Your task to perform on an android device: toggle airplane mode Image 0: 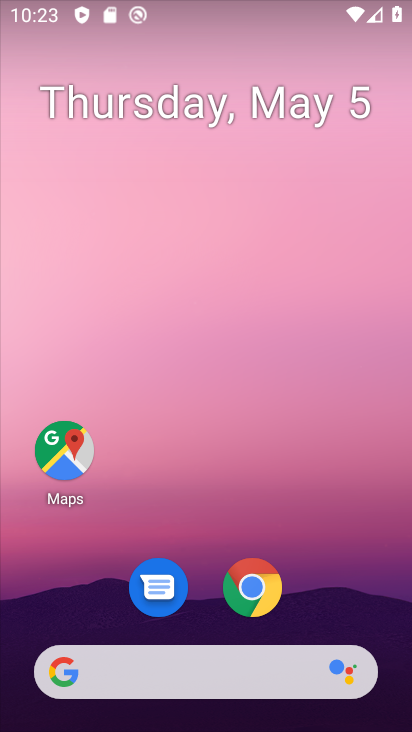
Step 0: drag from (321, 586) to (252, 28)
Your task to perform on an android device: toggle airplane mode Image 1: 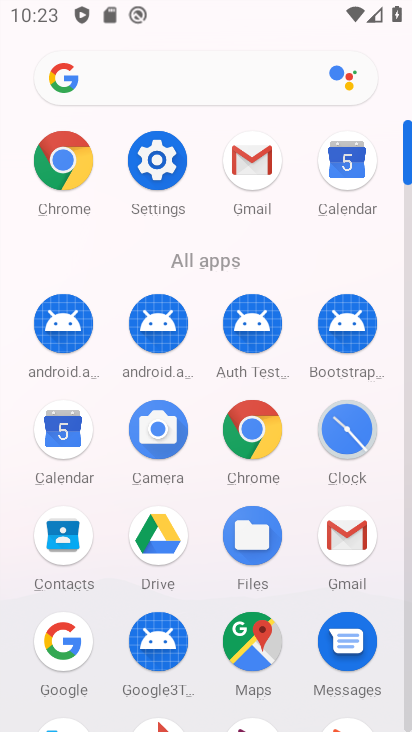
Step 1: drag from (14, 563) to (15, 246)
Your task to perform on an android device: toggle airplane mode Image 2: 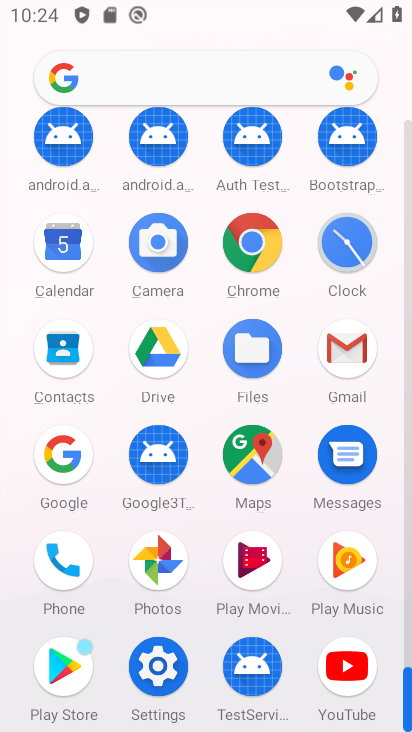
Step 2: click (158, 663)
Your task to perform on an android device: toggle airplane mode Image 3: 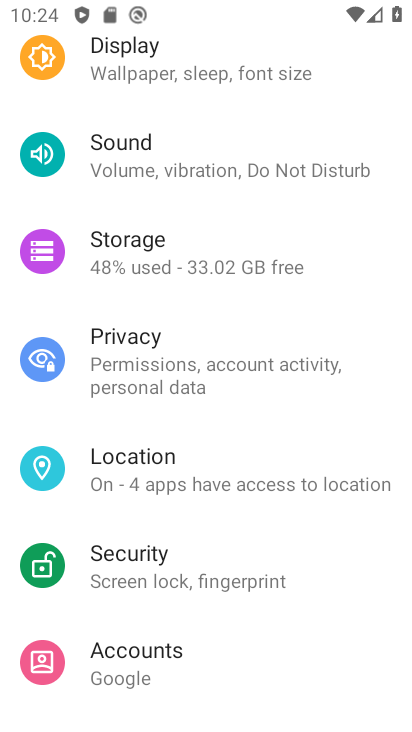
Step 3: drag from (231, 246) to (242, 600)
Your task to perform on an android device: toggle airplane mode Image 4: 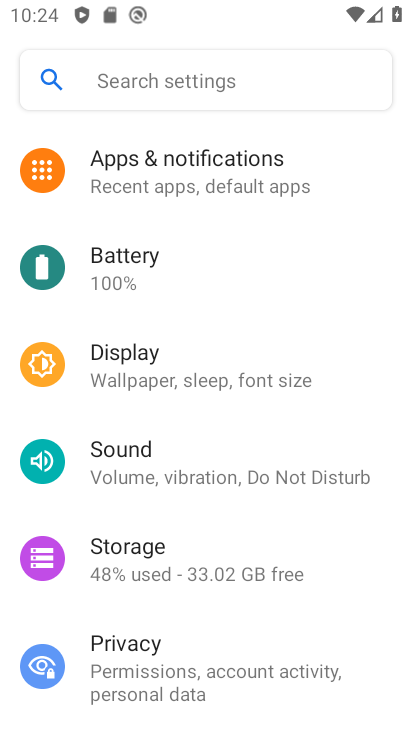
Step 4: drag from (222, 201) to (221, 580)
Your task to perform on an android device: toggle airplane mode Image 5: 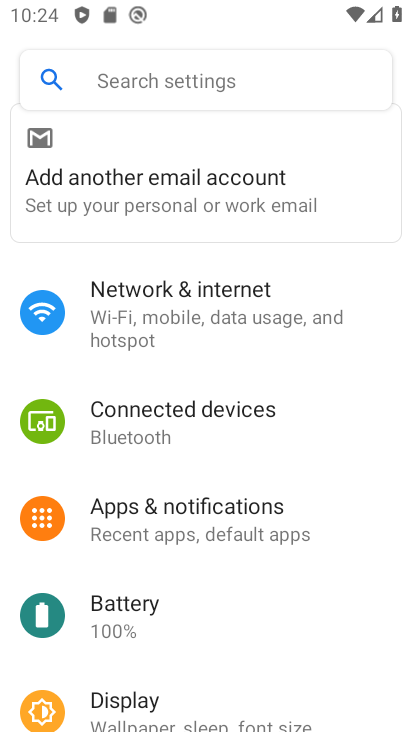
Step 5: click (197, 314)
Your task to perform on an android device: toggle airplane mode Image 6: 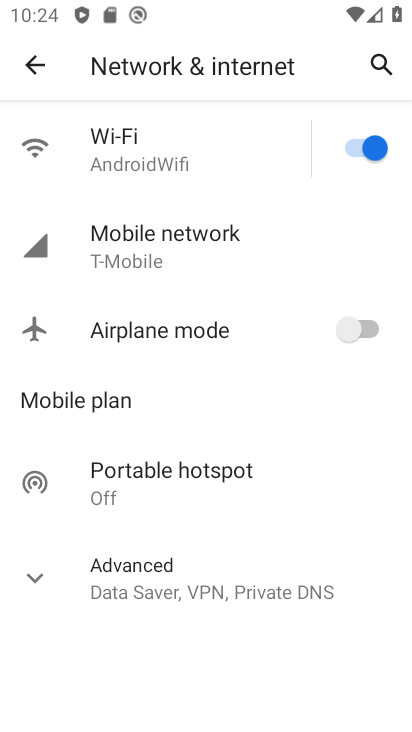
Step 6: click (53, 579)
Your task to perform on an android device: toggle airplane mode Image 7: 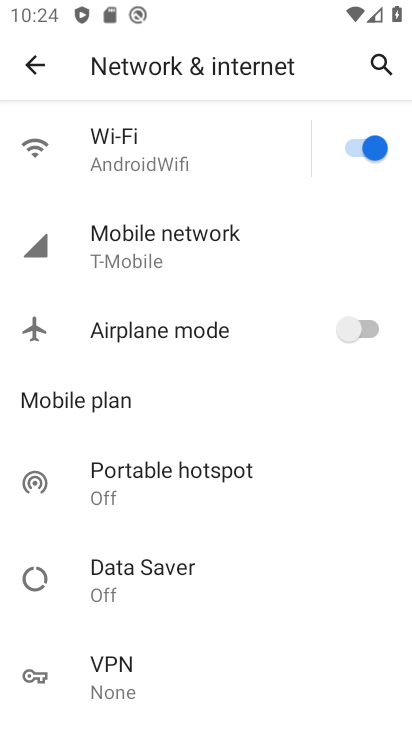
Step 7: drag from (226, 633) to (212, 272)
Your task to perform on an android device: toggle airplane mode Image 8: 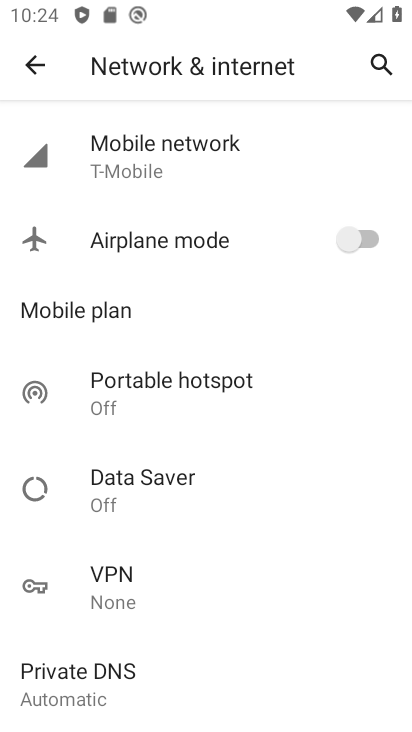
Step 8: click (373, 238)
Your task to perform on an android device: toggle airplane mode Image 9: 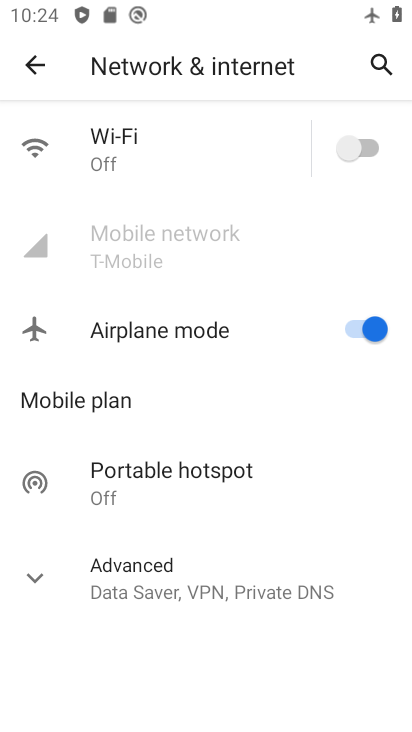
Step 9: task complete